Your task to perform on an android device: Show me recent news Image 0: 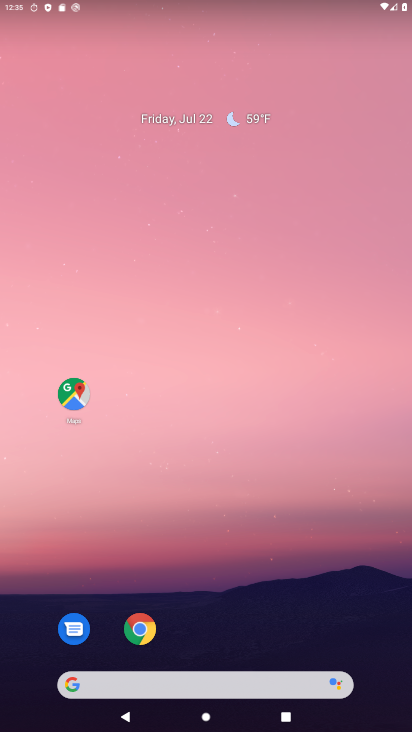
Step 0: drag from (148, 593) to (163, 127)
Your task to perform on an android device: Show me recent news Image 1: 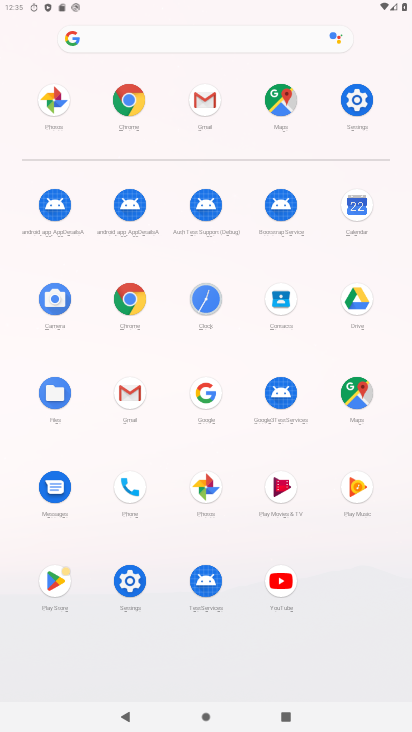
Step 1: click (118, 306)
Your task to perform on an android device: Show me recent news Image 2: 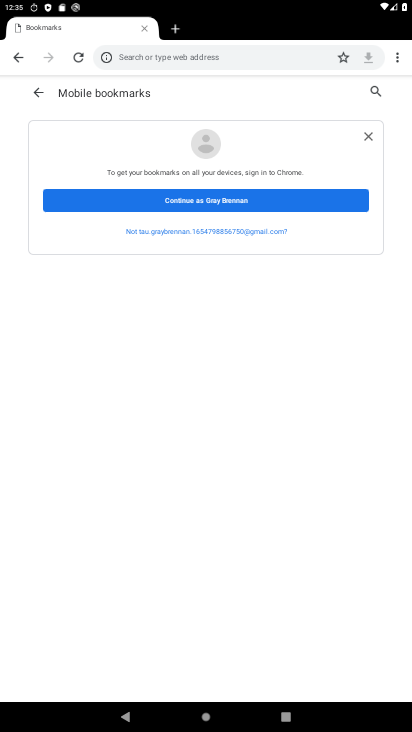
Step 2: click (210, 57)
Your task to perform on an android device: Show me recent news Image 3: 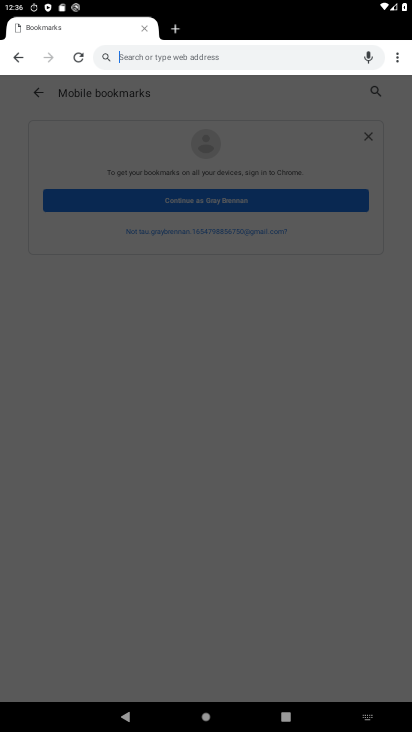
Step 3: type "recent news"
Your task to perform on an android device: Show me recent news Image 4: 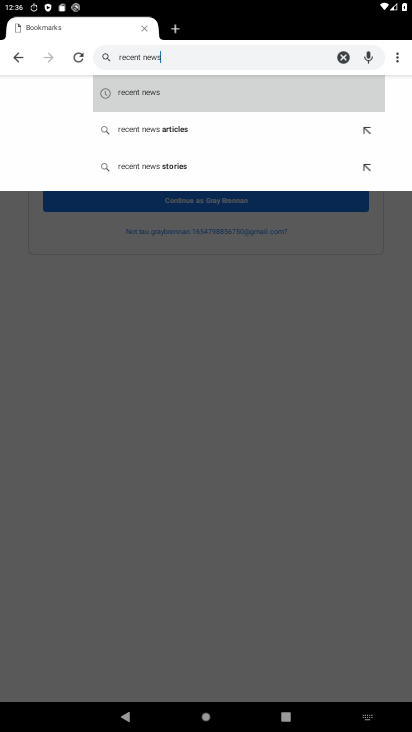
Step 4: click (194, 92)
Your task to perform on an android device: Show me recent news Image 5: 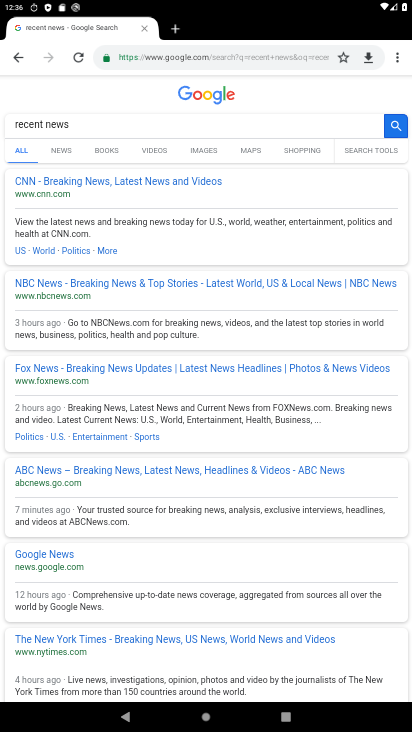
Step 5: task complete